Your task to perform on an android device: Open settings on Google Maps Image 0: 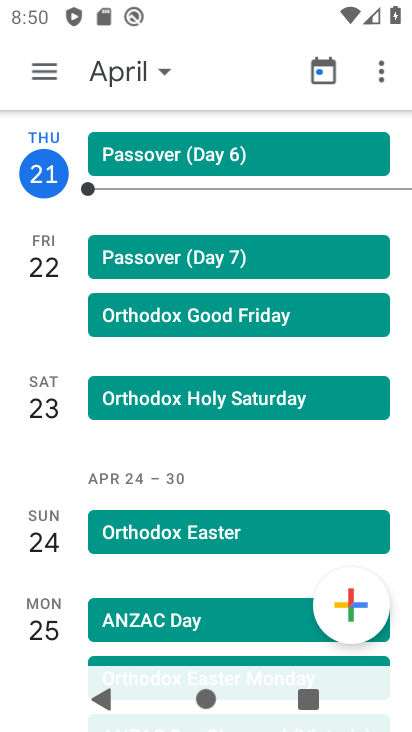
Step 0: press home button
Your task to perform on an android device: Open settings on Google Maps Image 1: 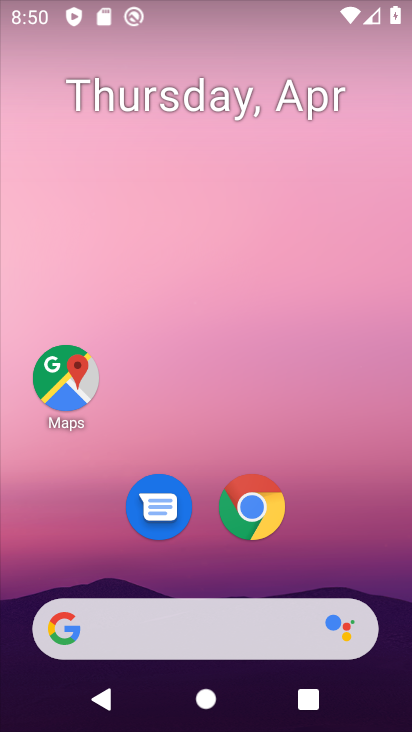
Step 1: drag from (228, 604) to (273, 225)
Your task to perform on an android device: Open settings on Google Maps Image 2: 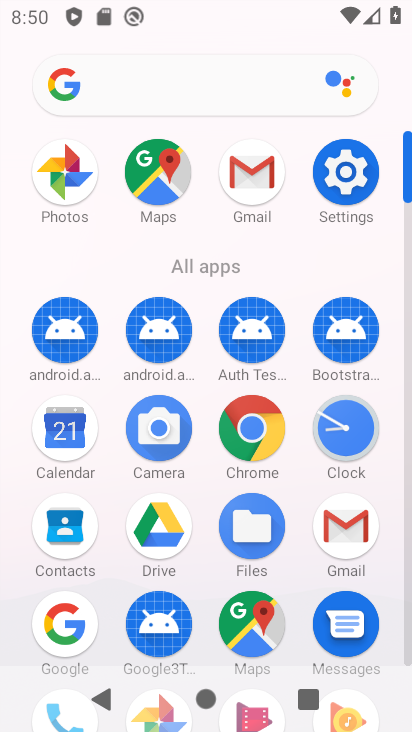
Step 2: click (252, 615)
Your task to perform on an android device: Open settings on Google Maps Image 3: 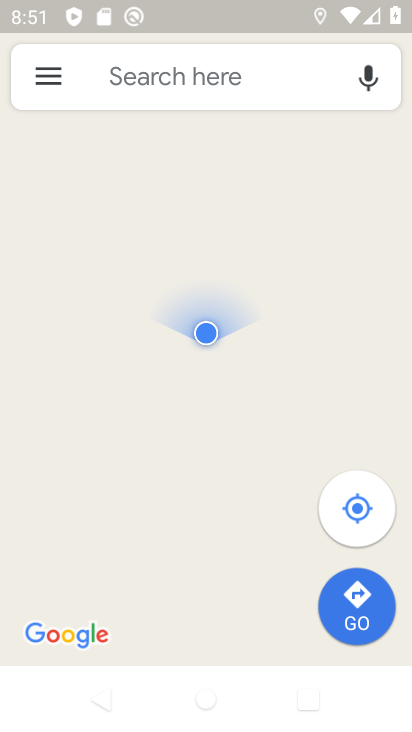
Step 3: click (54, 71)
Your task to perform on an android device: Open settings on Google Maps Image 4: 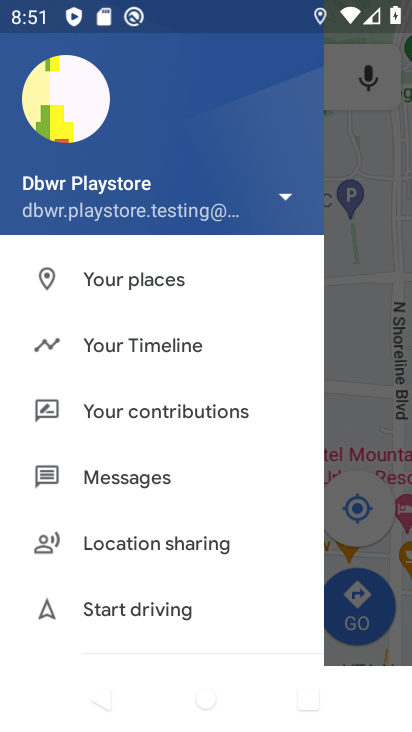
Step 4: drag from (177, 613) to (259, 167)
Your task to perform on an android device: Open settings on Google Maps Image 5: 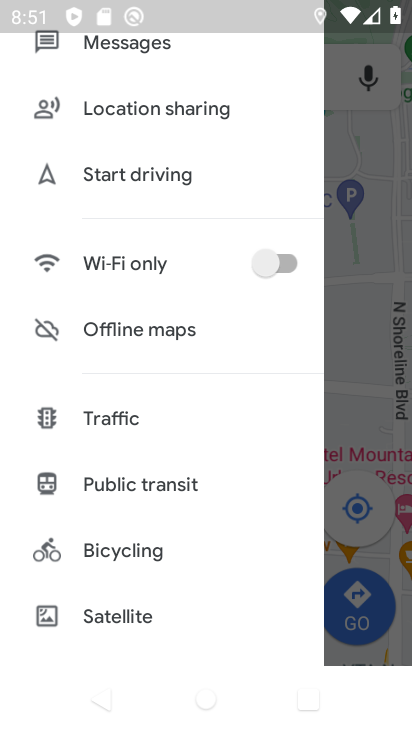
Step 5: drag from (116, 599) to (210, 108)
Your task to perform on an android device: Open settings on Google Maps Image 6: 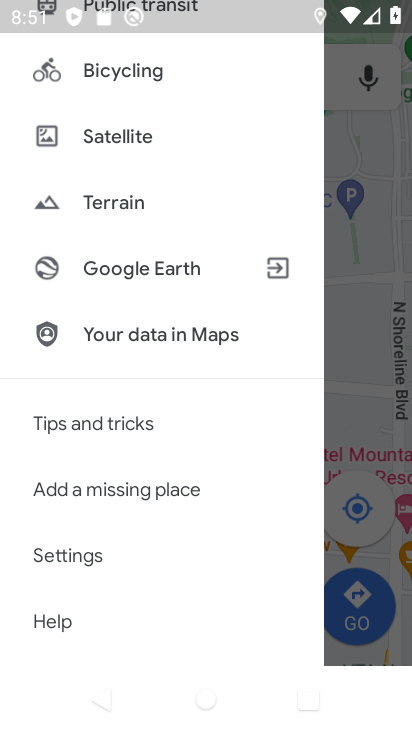
Step 6: click (77, 553)
Your task to perform on an android device: Open settings on Google Maps Image 7: 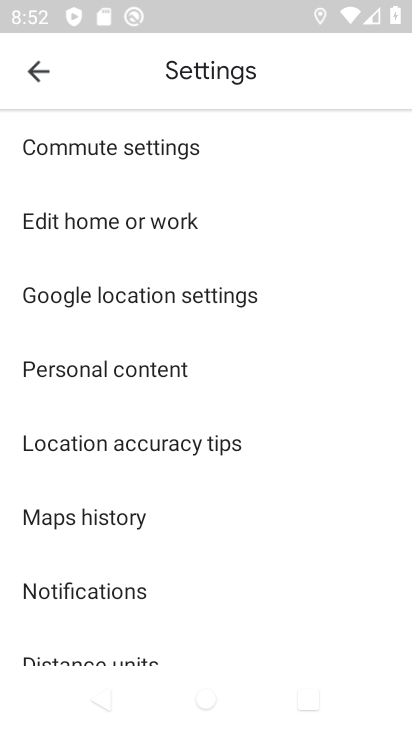
Step 7: task complete